Your task to perform on an android device: search for starred emails in the gmail app Image 0: 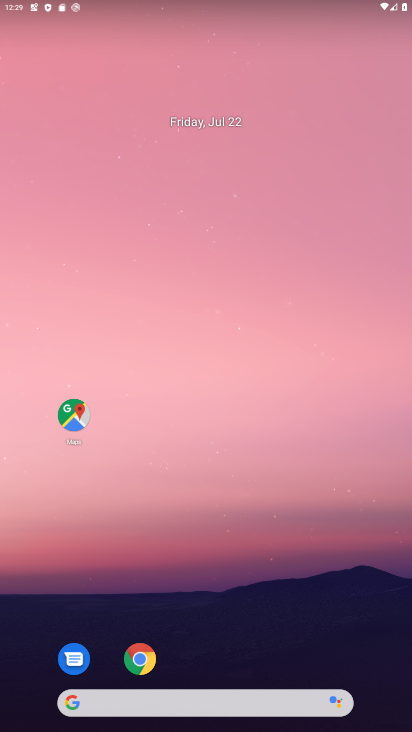
Step 0: drag from (187, 662) to (250, 109)
Your task to perform on an android device: search for starred emails in the gmail app Image 1: 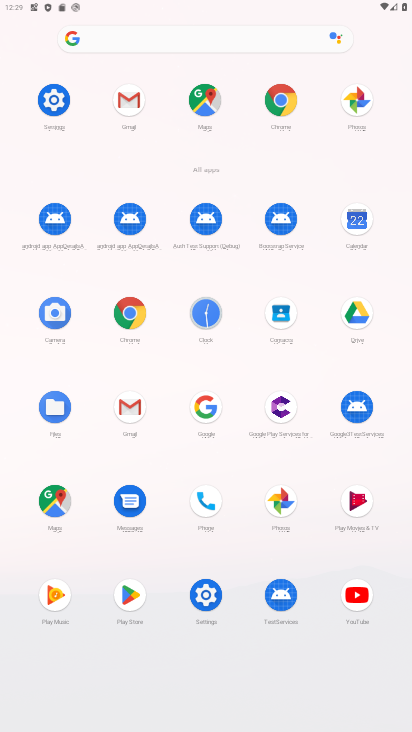
Step 1: click (125, 424)
Your task to perform on an android device: search for starred emails in the gmail app Image 2: 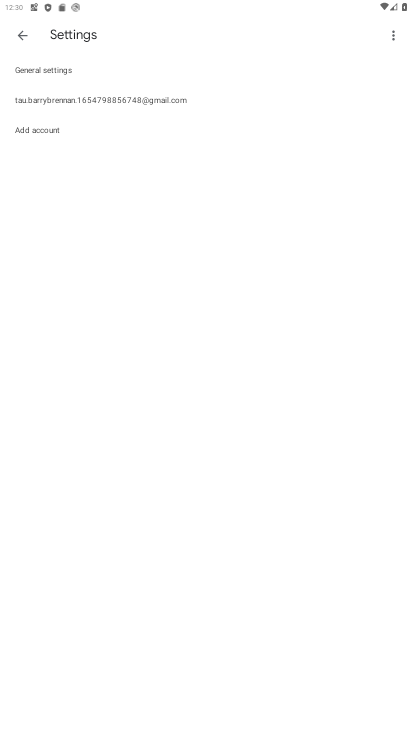
Step 2: click (20, 34)
Your task to perform on an android device: search for starred emails in the gmail app Image 3: 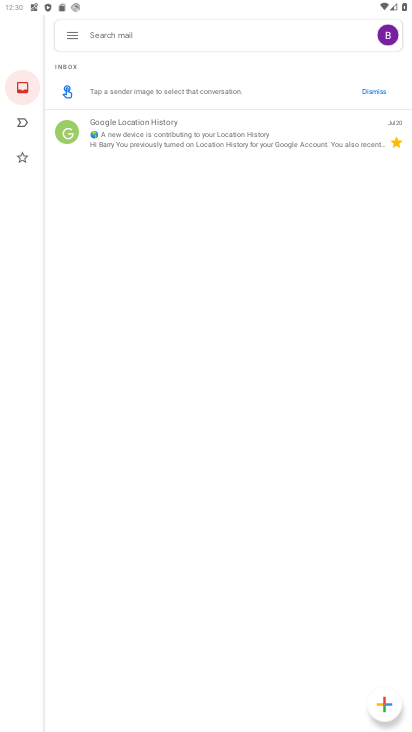
Step 3: click (75, 34)
Your task to perform on an android device: search for starred emails in the gmail app Image 4: 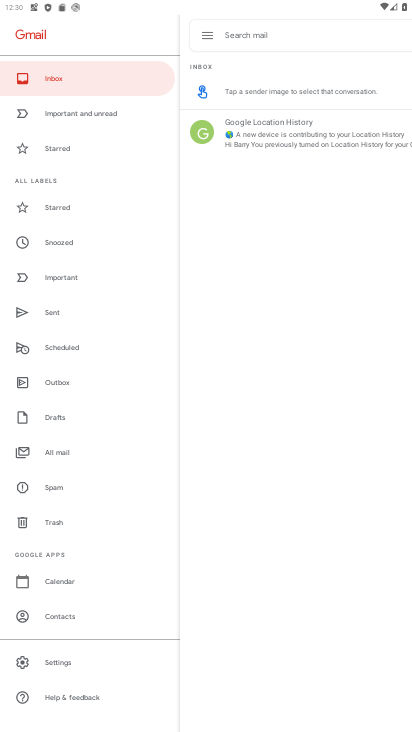
Step 4: click (67, 207)
Your task to perform on an android device: search for starred emails in the gmail app Image 5: 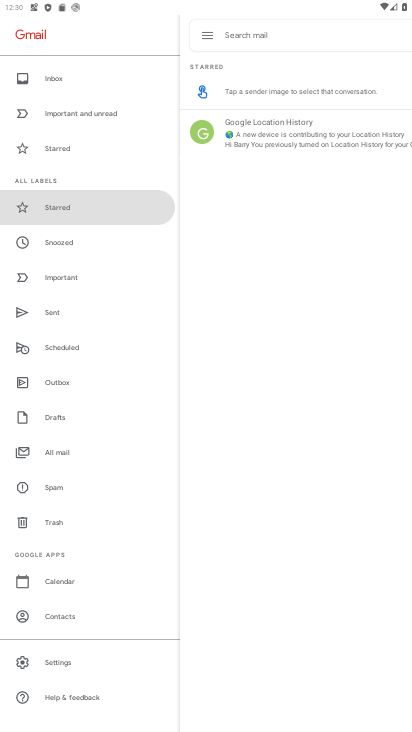
Step 5: task complete